Your task to perform on an android device: manage bookmarks in the chrome app Image 0: 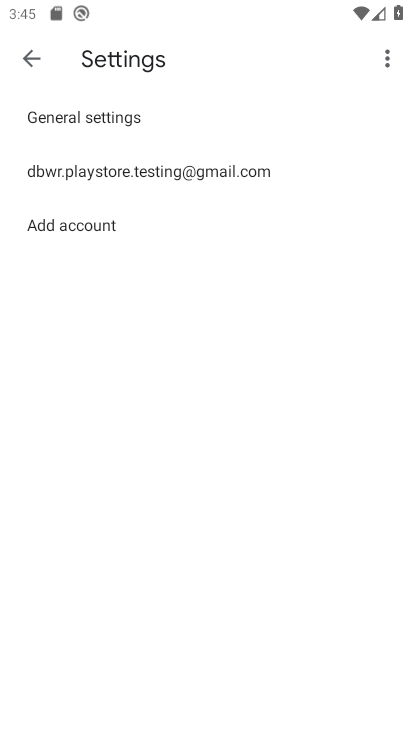
Step 0: press back button
Your task to perform on an android device: manage bookmarks in the chrome app Image 1: 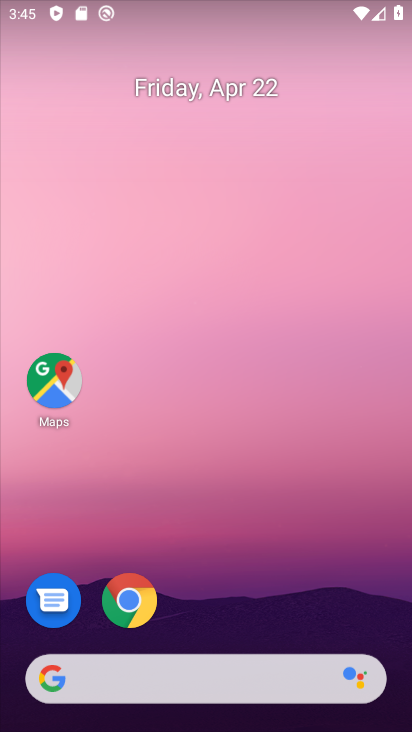
Step 1: drag from (217, 504) to (363, 3)
Your task to perform on an android device: manage bookmarks in the chrome app Image 2: 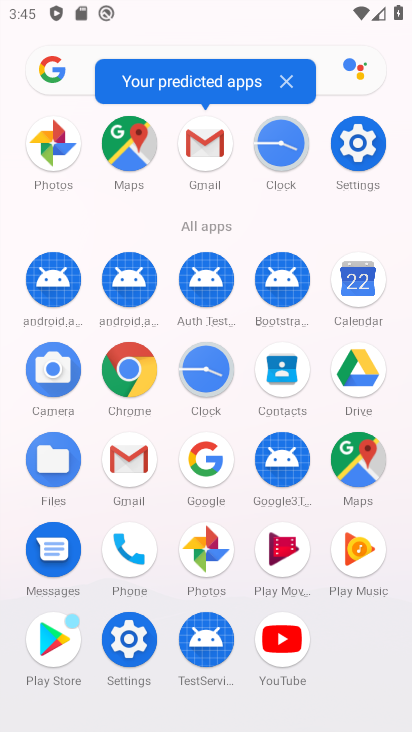
Step 2: click (136, 376)
Your task to perform on an android device: manage bookmarks in the chrome app Image 3: 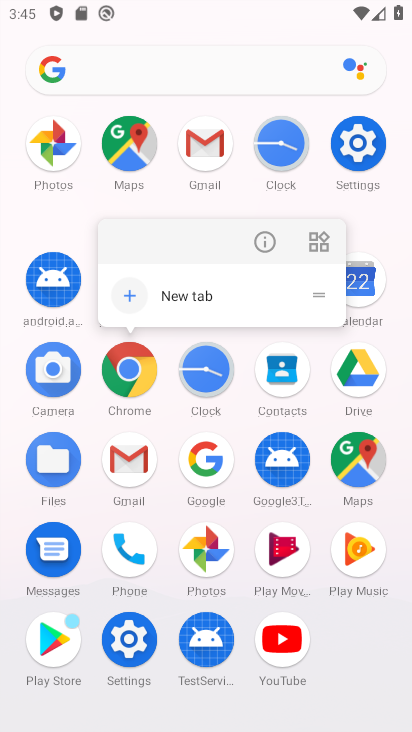
Step 3: click (137, 373)
Your task to perform on an android device: manage bookmarks in the chrome app Image 4: 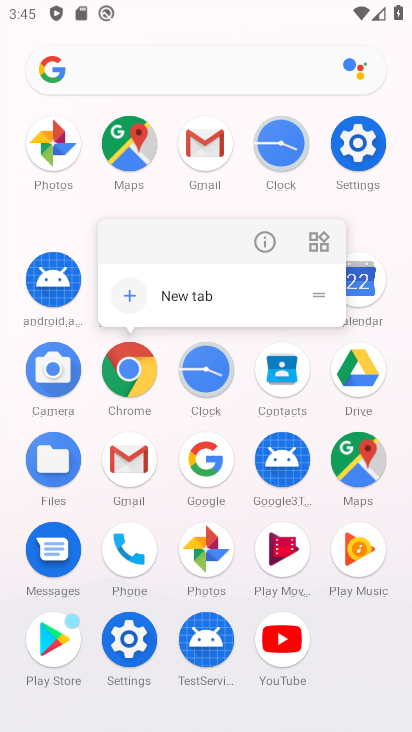
Step 4: click (135, 365)
Your task to perform on an android device: manage bookmarks in the chrome app Image 5: 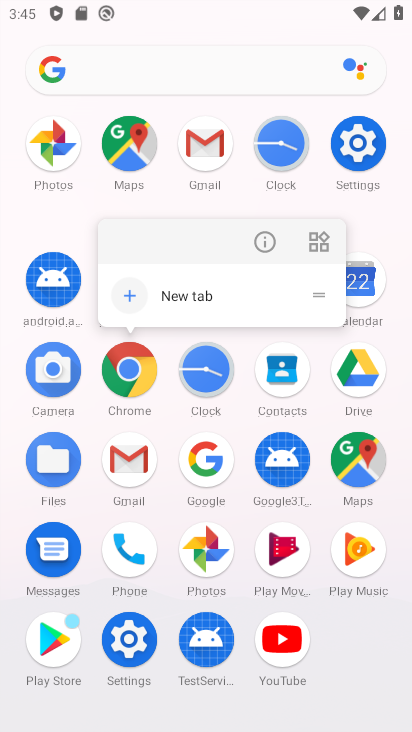
Step 5: click (138, 364)
Your task to perform on an android device: manage bookmarks in the chrome app Image 6: 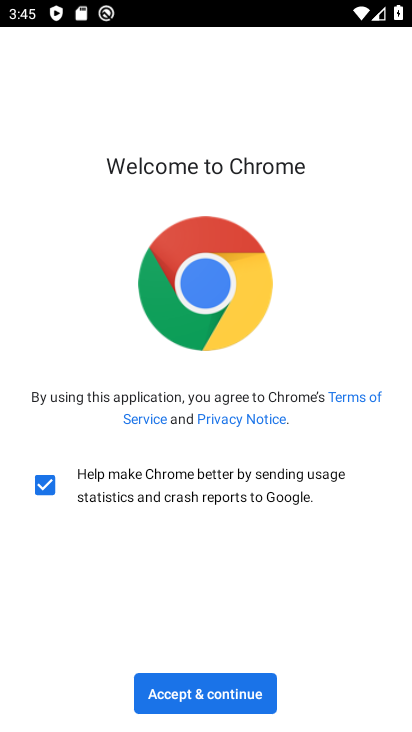
Step 6: click (206, 695)
Your task to perform on an android device: manage bookmarks in the chrome app Image 7: 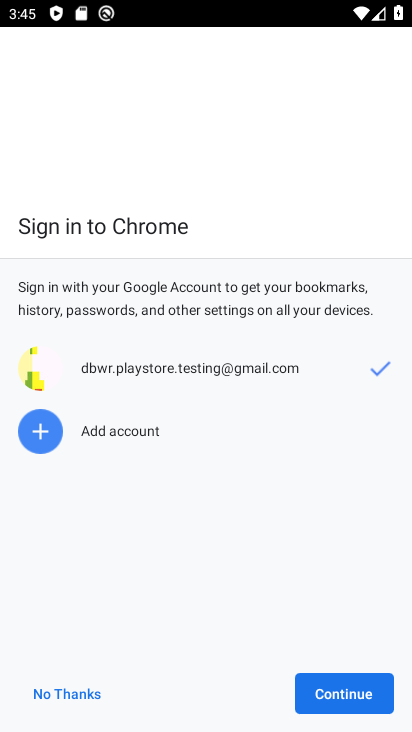
Step 7: click (358, 702)
Your task to perform on an android device: manage bookmarks in the chrome app Image 8: 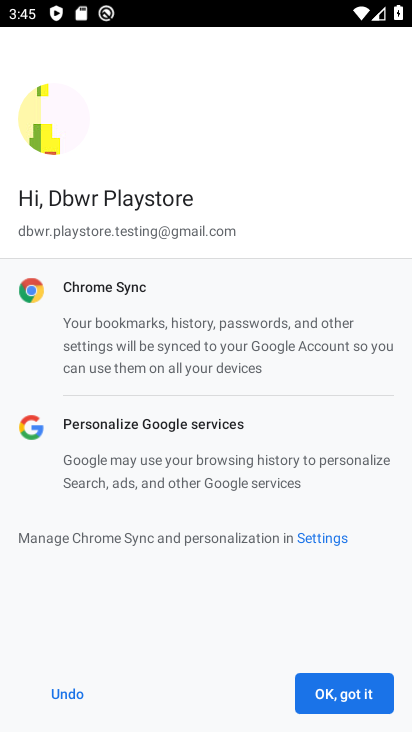
Step 8: click (358, 702)
Your task to perform on an android device: manage bookmarks in the chrome app Image 9: 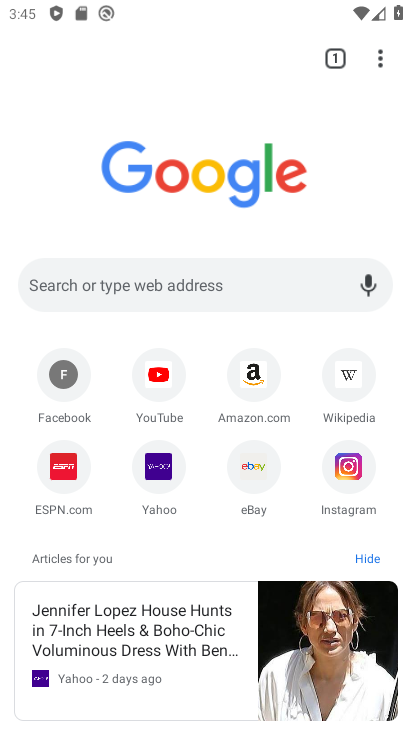
Step 9: task complete